Your task to perform on an android device: change timer sound Image 0: 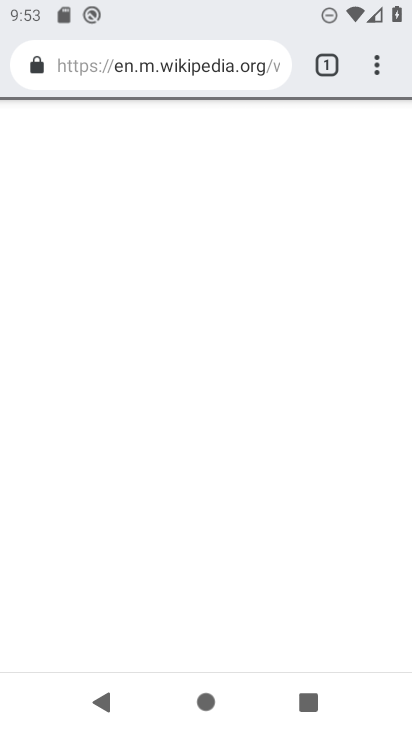
Step 0: press home button
Your task to perform on an android device: change timer sound Image 1: 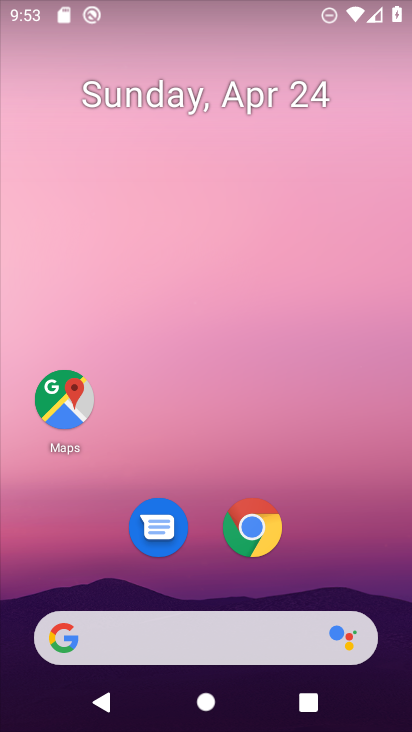
Step 1: drag from (391, 619) to (270, 95)
Your task to perform on an android device: change timer sound Image 2: 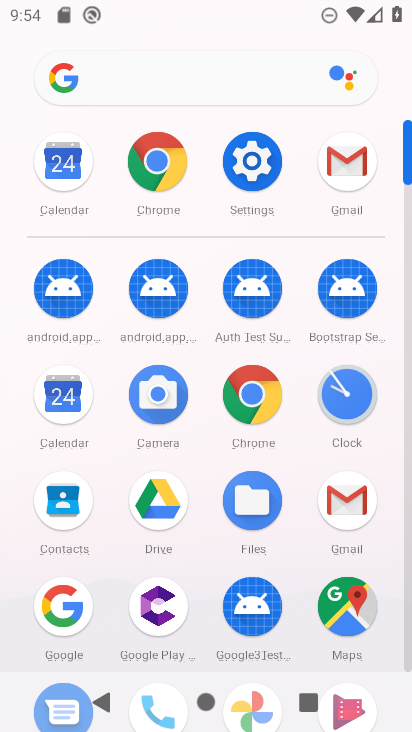
Step 2: click (356, 392)
Your task to perform on an android device: change timer sound Image 3: 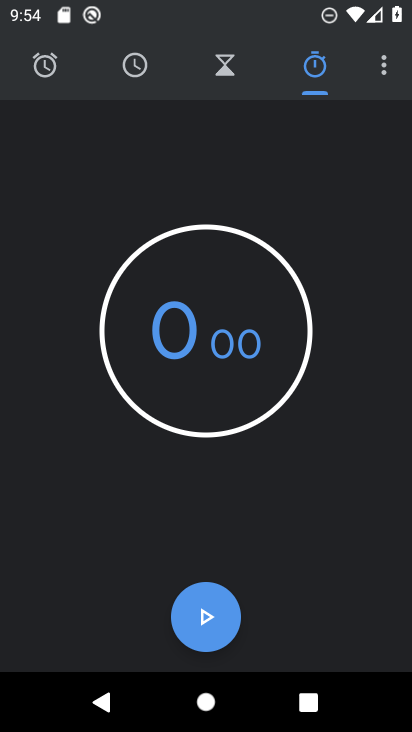
Step 3: click (381, 69)
Your task to perform on an android device: change timer sound Image 4: 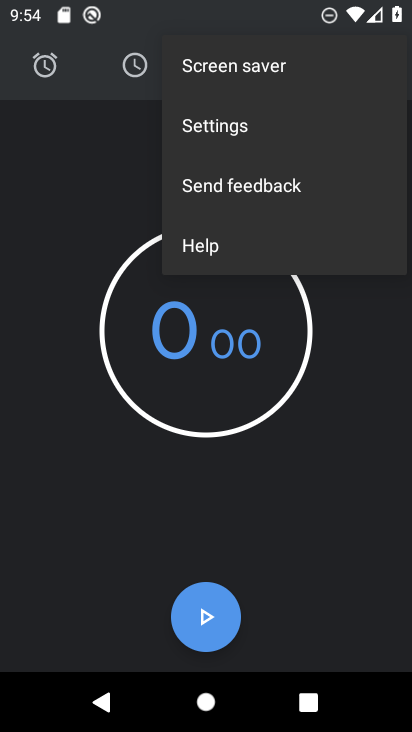
Step 4: click (246, 136)
Your task to perform on an android device: change timer sound Image 5: 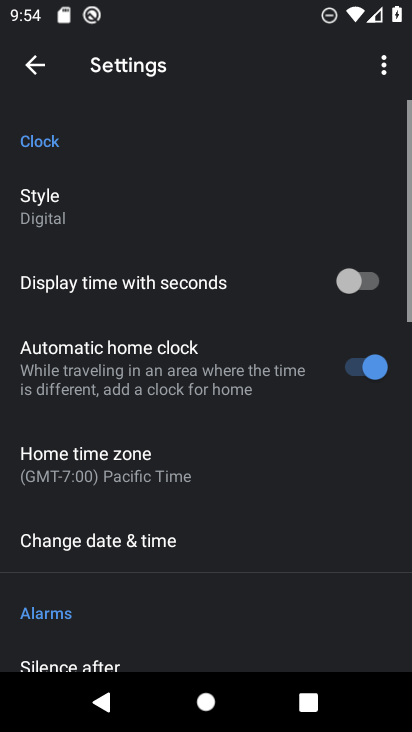
Step 5: drag from (224, 588) to (286, 162)
Your task to perform on an android device: change timer sound Image 6: 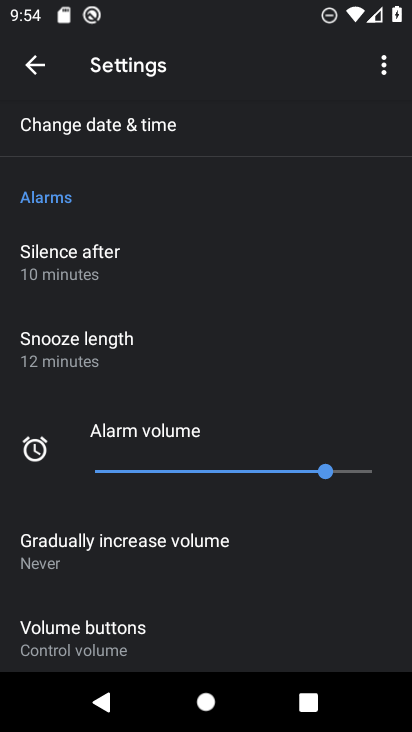
Step 6: drag from (202, 580) to (264, 155)
Your task to perform on an android device: change timer sound Image 7: 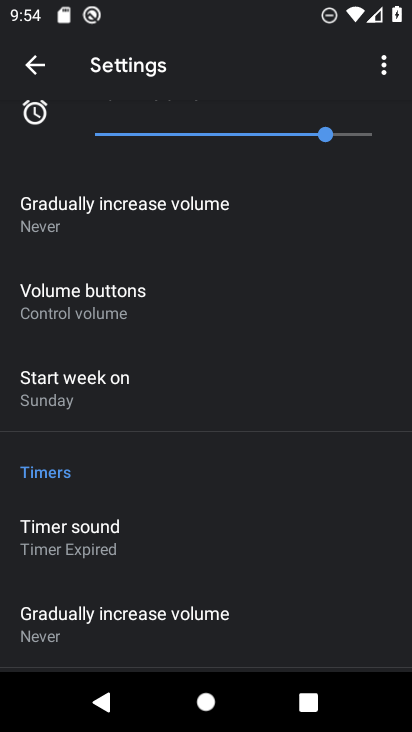
Step 7: click (221, 531)
Your task to perform on an android device: change timer sound Image 8: 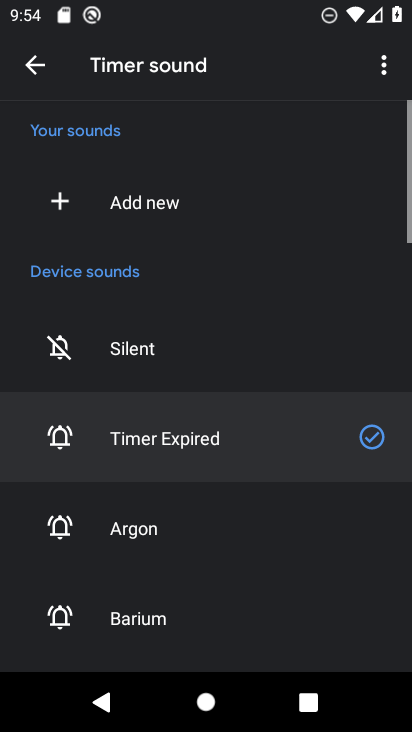
Step 8: click (221, 531)
Your task to perform on an android device: change timer sound Image 9: 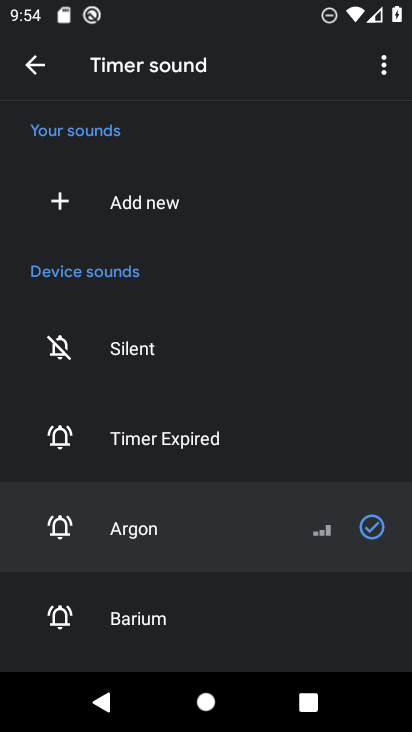
Step 9: task complete